Your task to perform on an android device: Open sound settings Image 0: 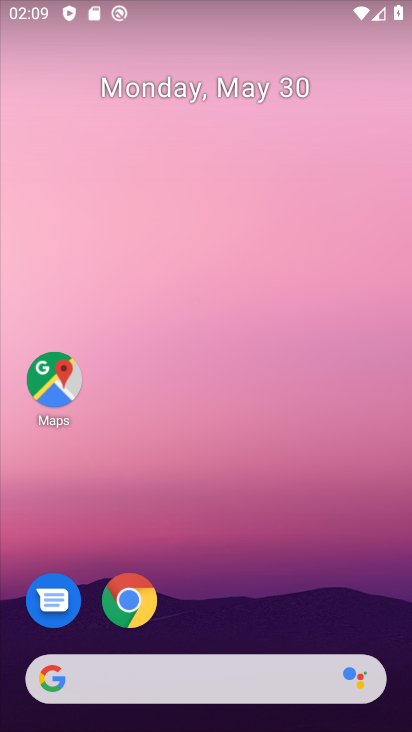
Step 0: drag from (275, 579) to (268, 121)
Your task to perform on an android device: Open sound settings Image 1: 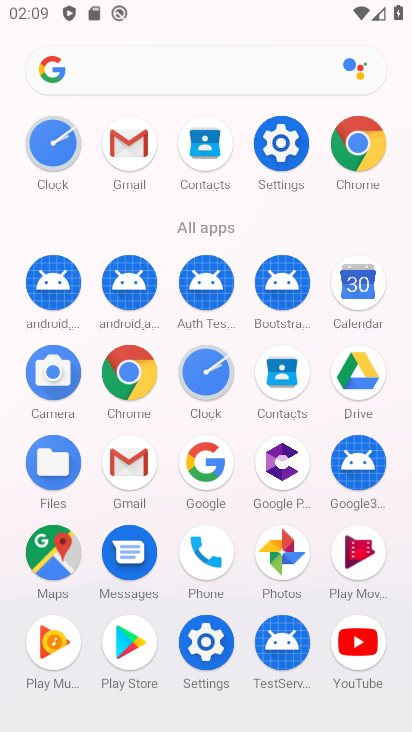
Step 1: click (283, 146)
Your task to perform on an android device: Open sound settings Image 2: 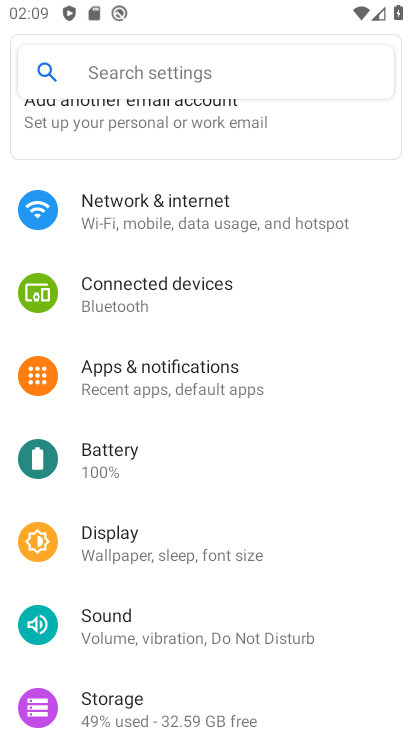
Step 2: click (144, 621)
Your task to perform on an android device: Open sound settings Image 3: 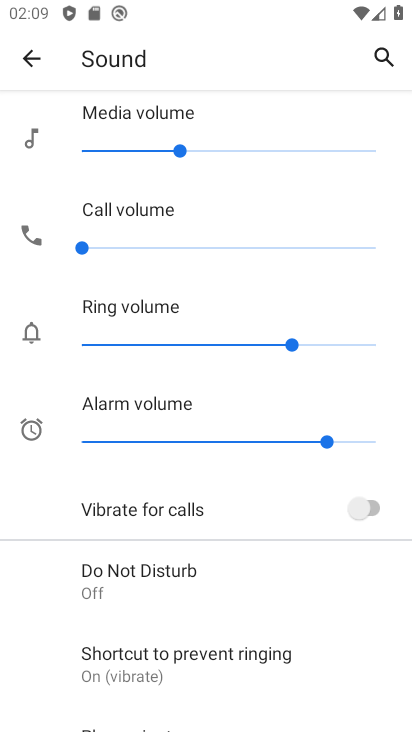
Step 3: task complete